Your task to perform on an android device: visit the assistant section in the google photos Image 0: 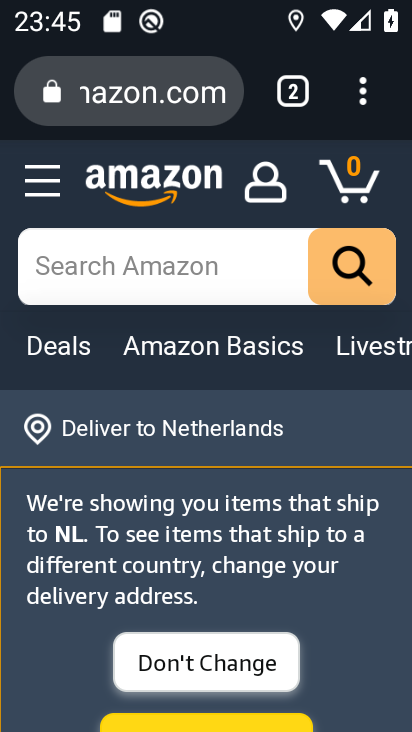
Step 0: press home button
Your task to perform on an android device: visit the assistant section in the google photos Image 1: 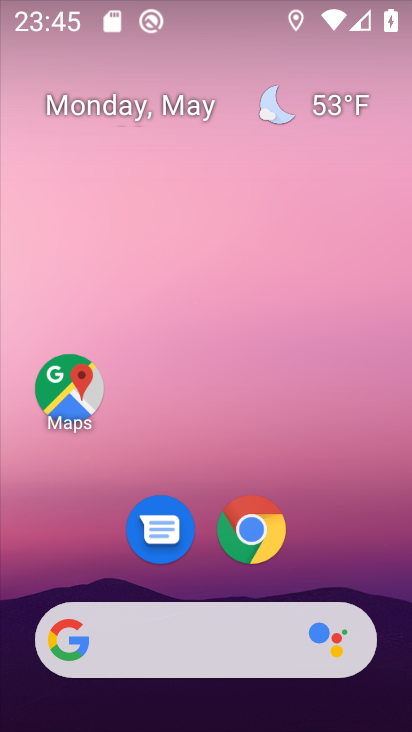
Step 1: drag from (339, 530) to (305, 117)
Your task to perform on an android device: visit the assistant section in the google photos Image 2: 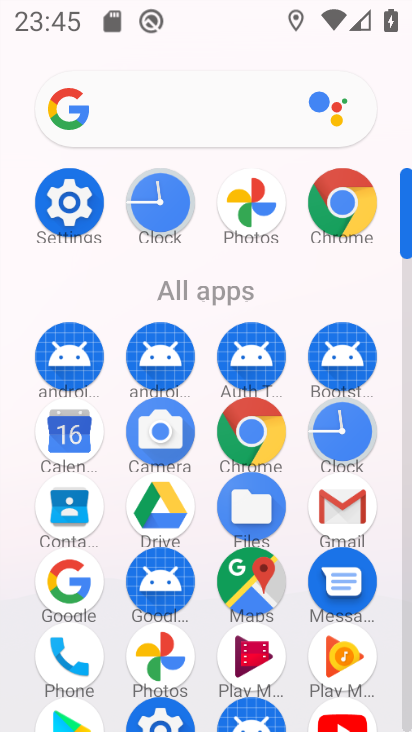
Step 2: click (162, 641)
Your task to perform on an android device: visit the assistant section in the google photos Image 3: 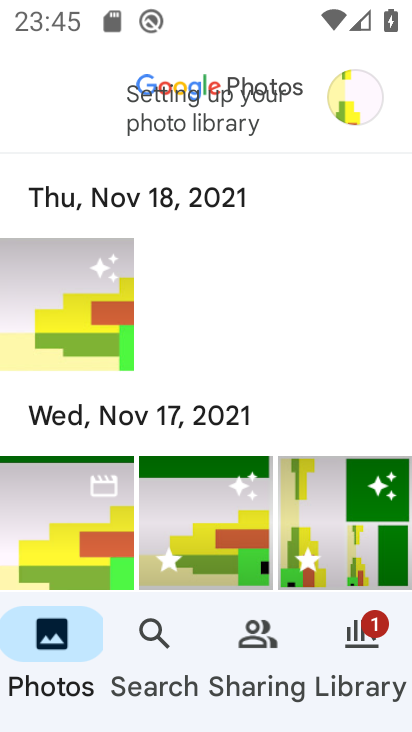
Step 3: click (347, 92)
Your task to perform on an android device: visit the assistant section in the google photos Image 4: 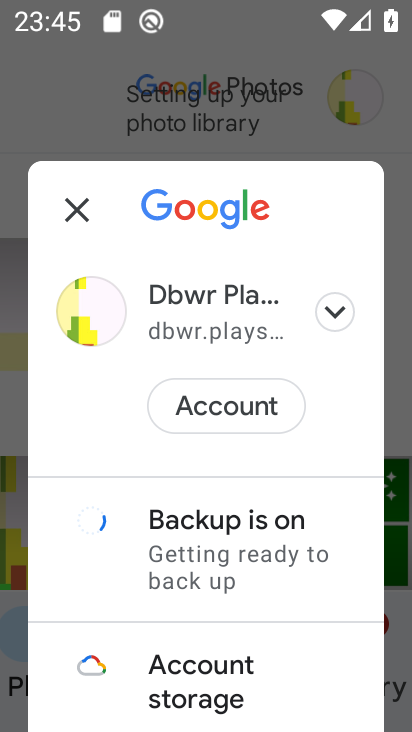
Step 4: click (404, 348)
Your task to perform on an android device: visit the assistant section in the google photos Image 5: 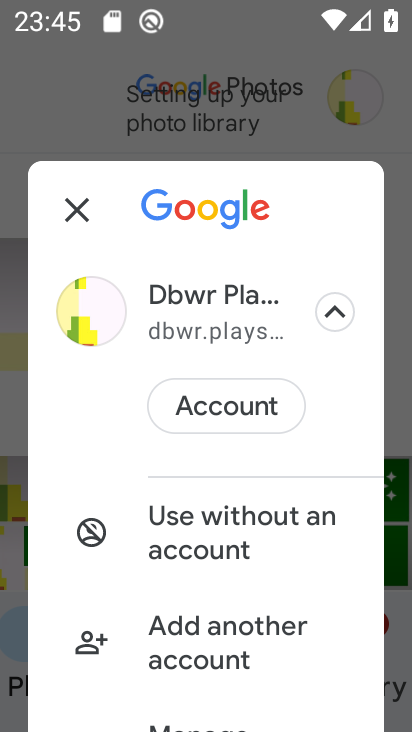
Step 5: click (82, 207)
Your task to perform on an android device: visit the assistant section in the google photos Image 6: 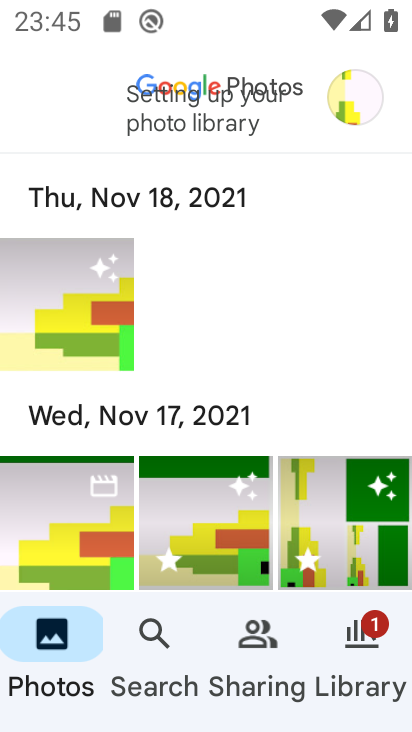
Step 6: click (266, 647)
Your task to perform on an android device: visit the assistant section in the google photos Image 7: 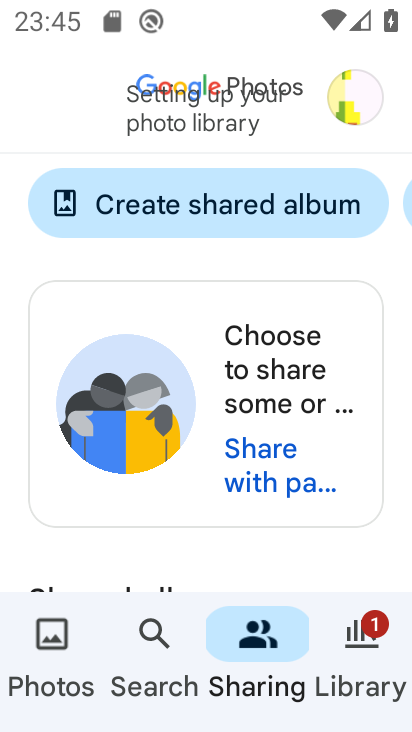
Step 7: click (355, 672)
Your task to perform on an android device: visit the assistant section in the google photos Image 8: 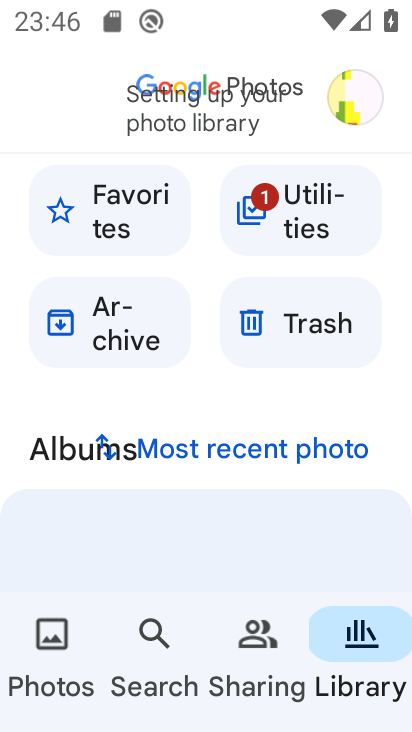
Step 8: task complete